Your task to perform on an android device: open a bookmark in the chrome app Image 0: 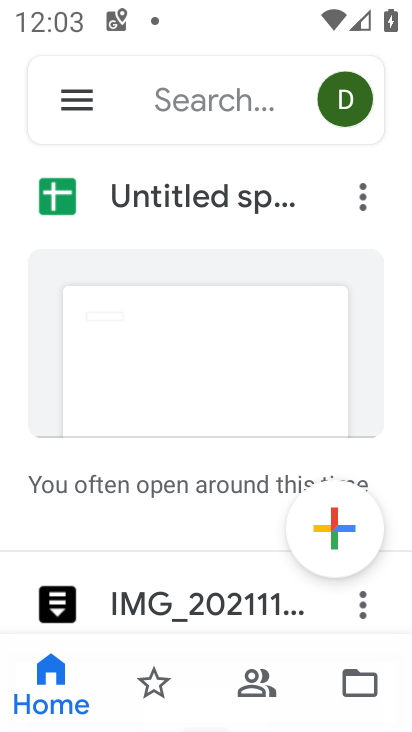
Step 0: press home button
Your task to perform on an android device: open a bookmark in the chrome app Image 1: 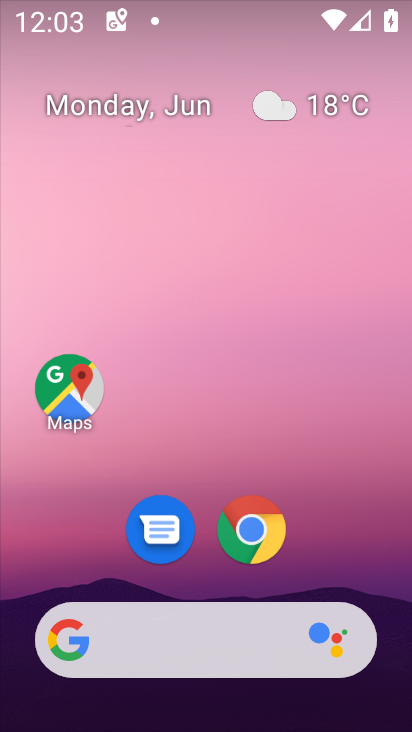
Step 1: drag from (383, 511) to (314, 18)
Your task to perform on an android device: open a bookmark in the chrome app Image 2: 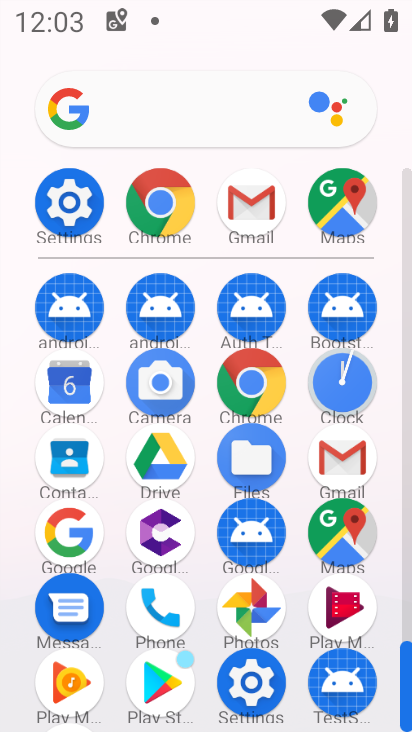
Step 2: click (191, 189)
Your task to perform on an android device: open a bookmark in the chrome app Image 3: 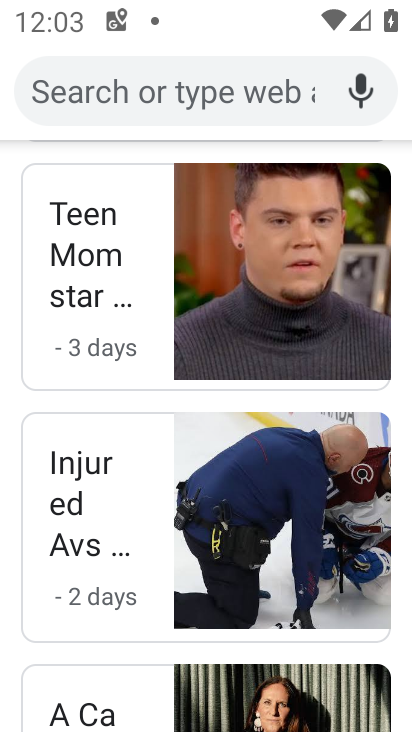
Step 3: task complete